Your task to perform on an android device: open app "Google Find My Device" Image 0: 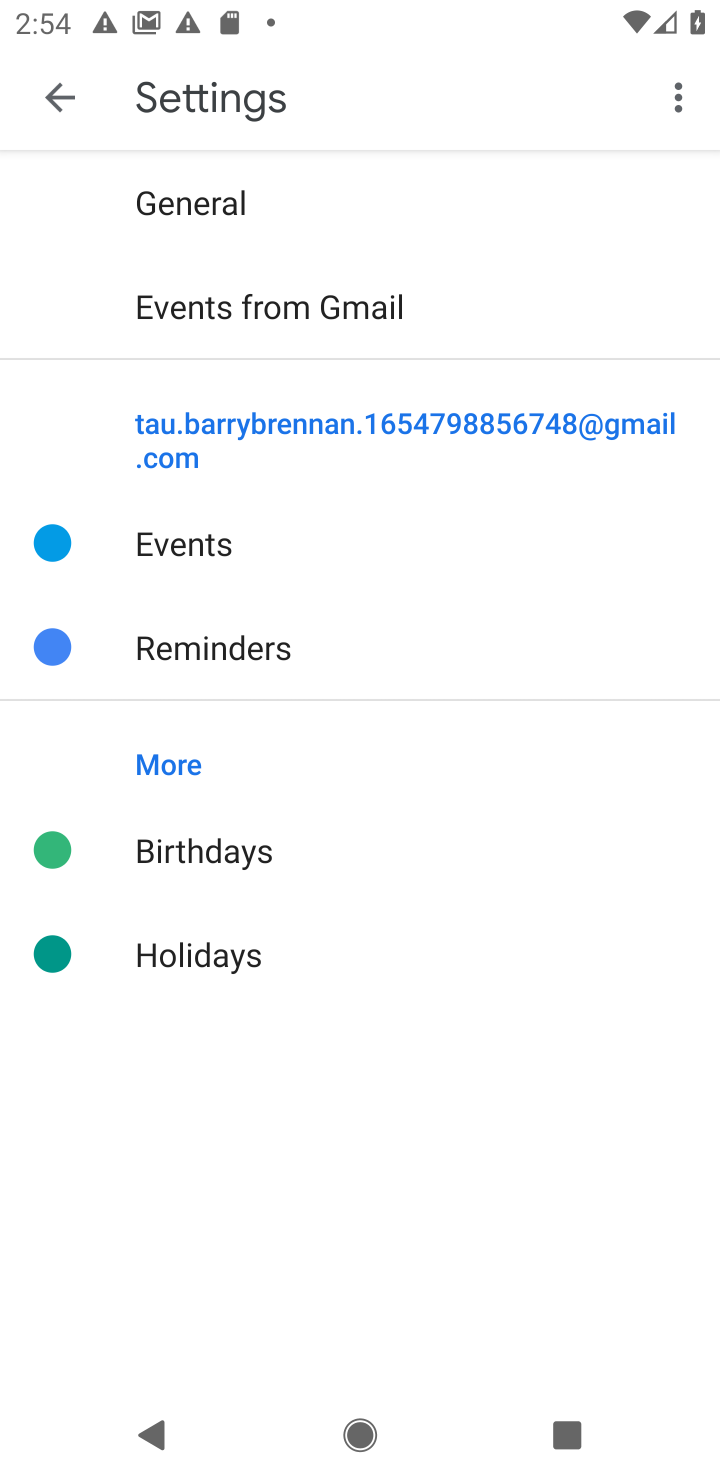
Step 0: press home button
Your task to perform on an android device: open app "Google Find My Device" Image 1: 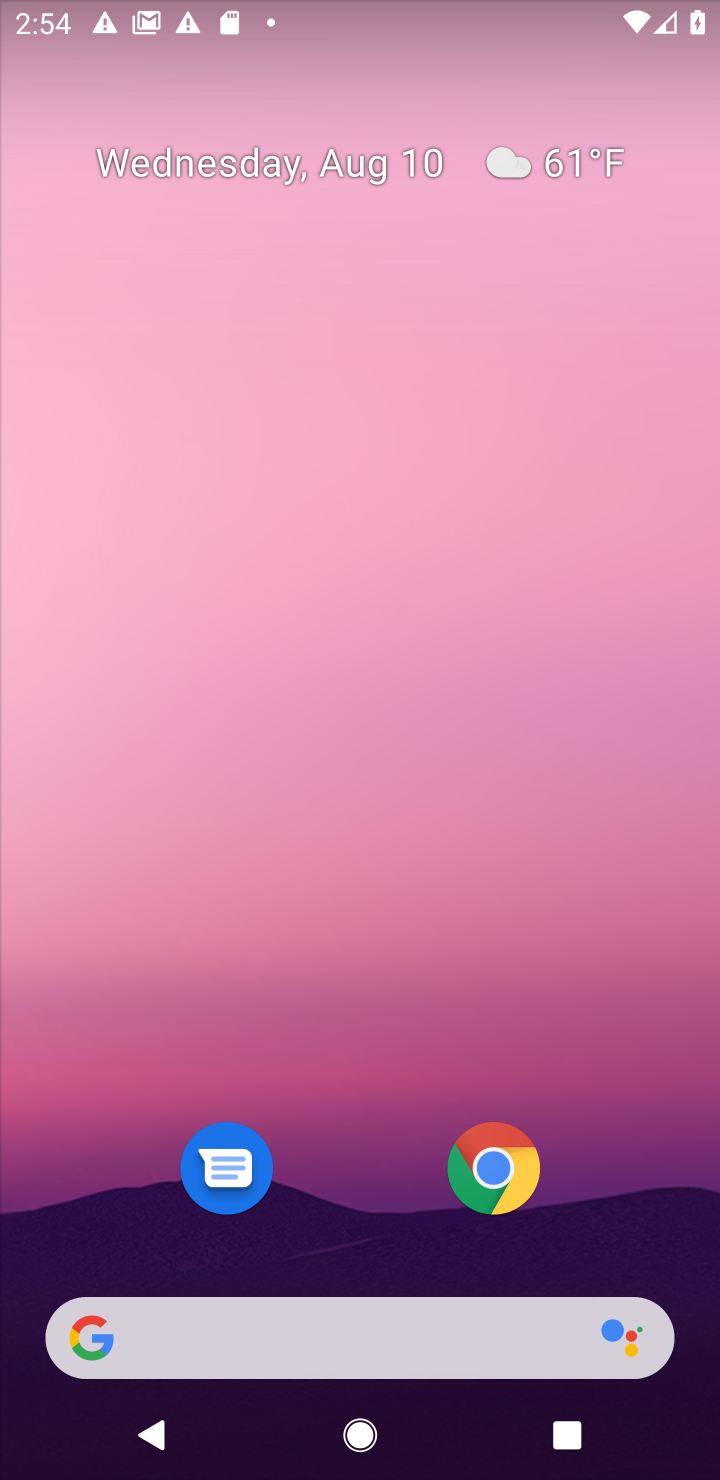
Step 1: drag from (379, 1250) to (357, 200)
Your task to perform on an android device: open app "Google Find My Device" Image 2: 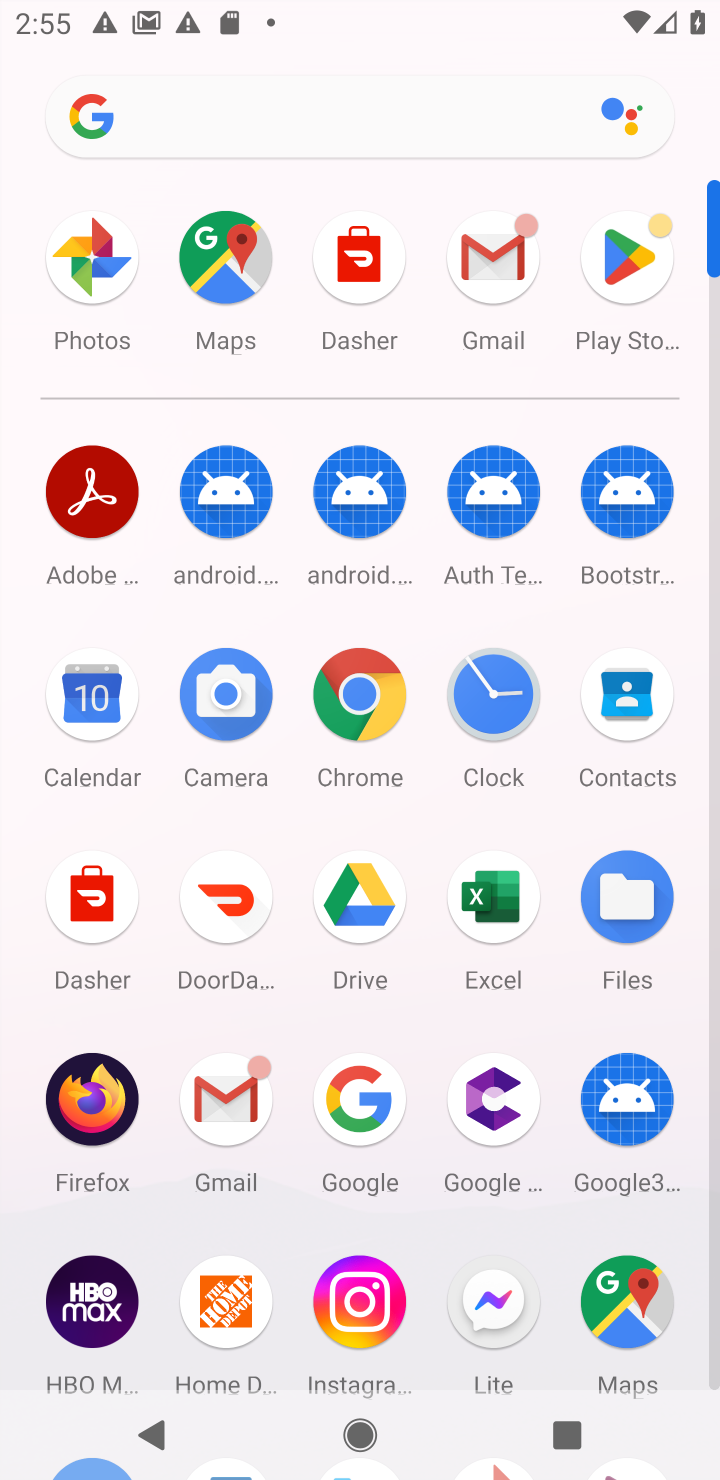
Step 2: click (628, 259)
Your task to perform on an android device: open app "Google Find My Device" Image 3: 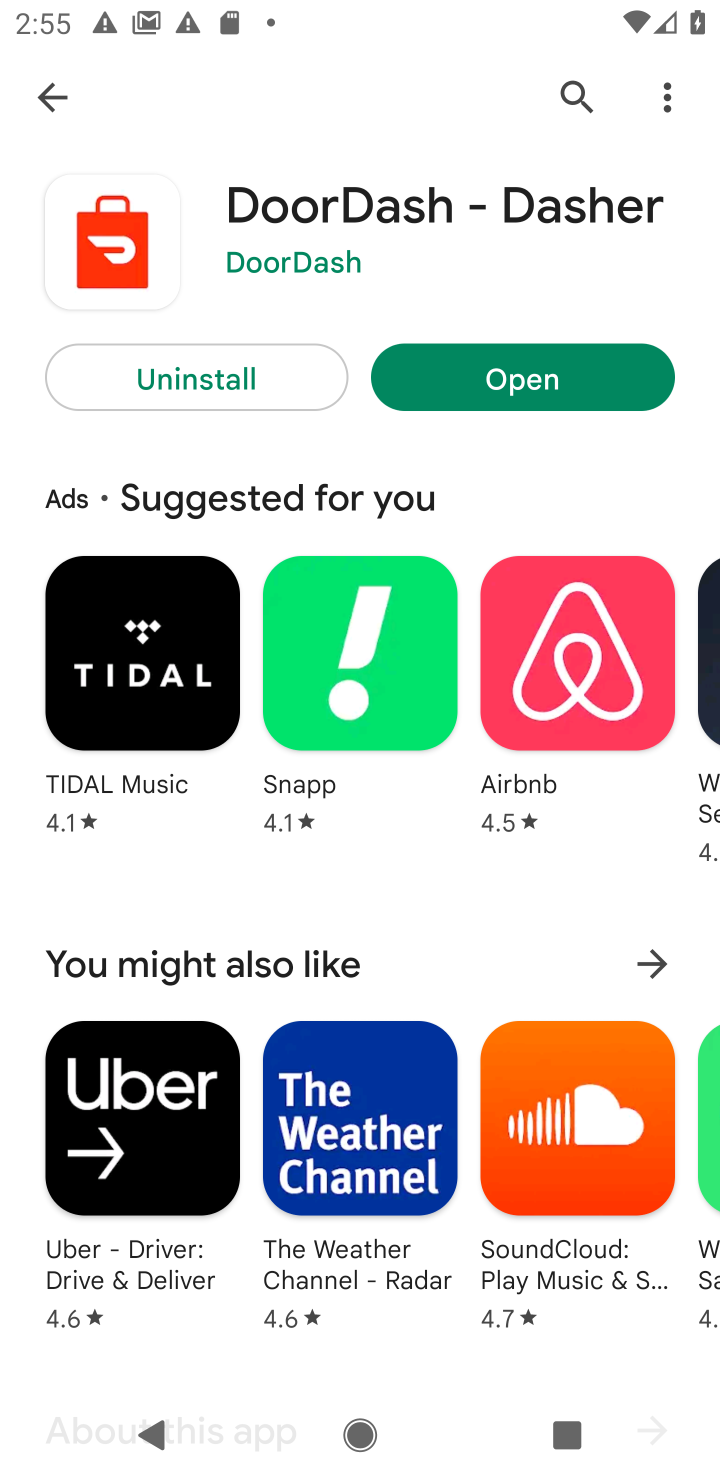
Step 3: click (582, 100)
Your task to perform on an android device: open app "Google Find My Device" Image 4: 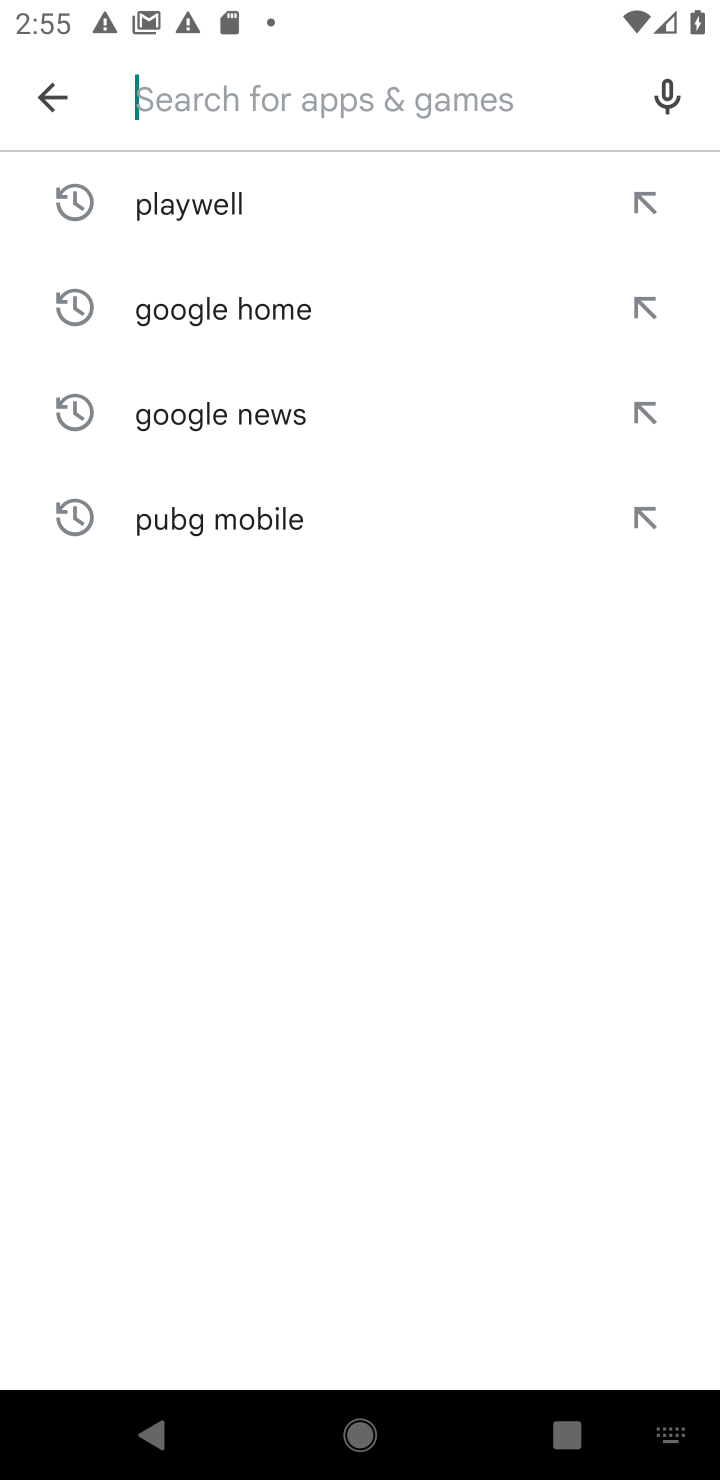
Step 4: type "Google Find My Device"
Your task to perform on an android device: open app "Google Find My Device" Image 5: 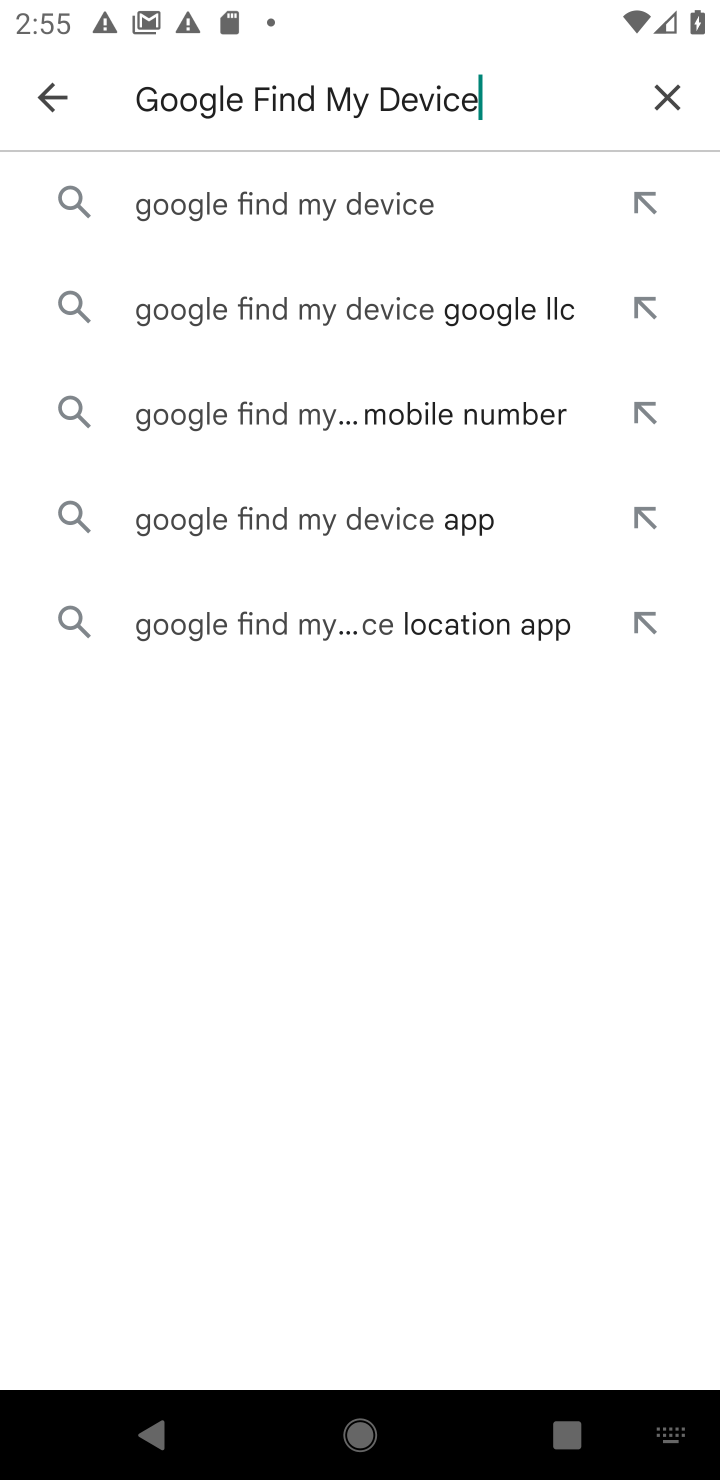
Step 5: click (311, 215)
Your task to perform on an android device: open app "Google Find My Device" Image 6: 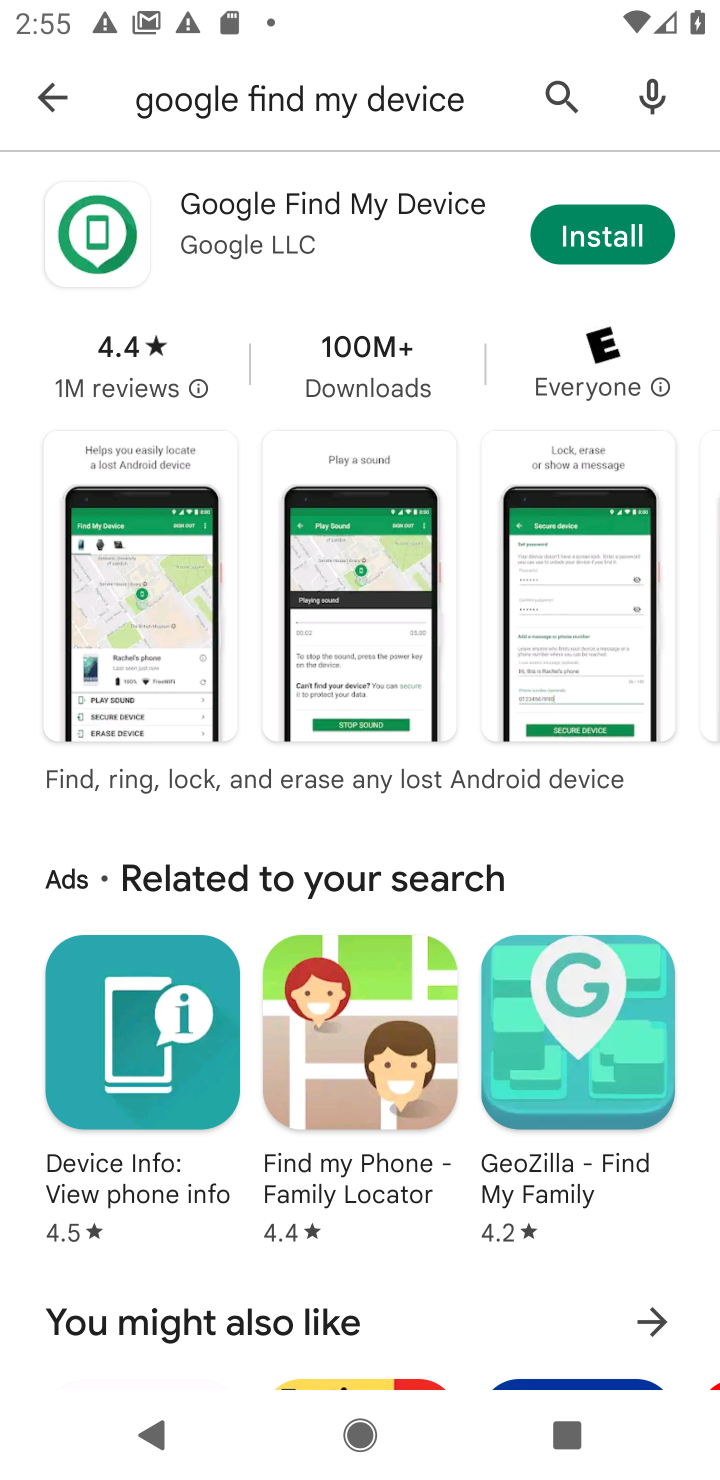
Step 6: task complete